Your task to perform on an android device: delete the emails in spam in the gmail app Image 0: 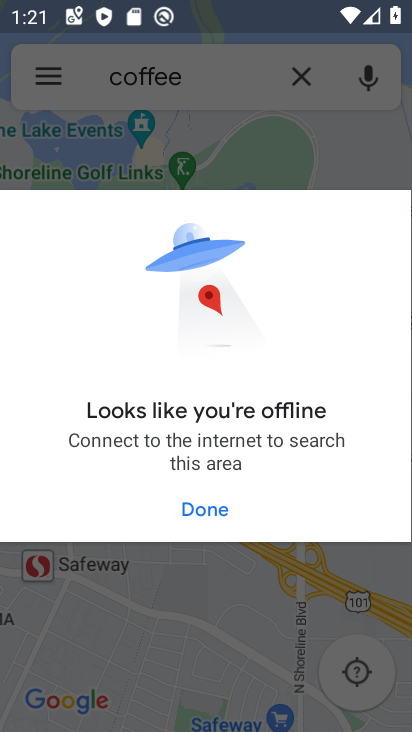
Step 0: press home button
Your task to perform on an android device: delete the emails in spam in the gmail app Image 1: 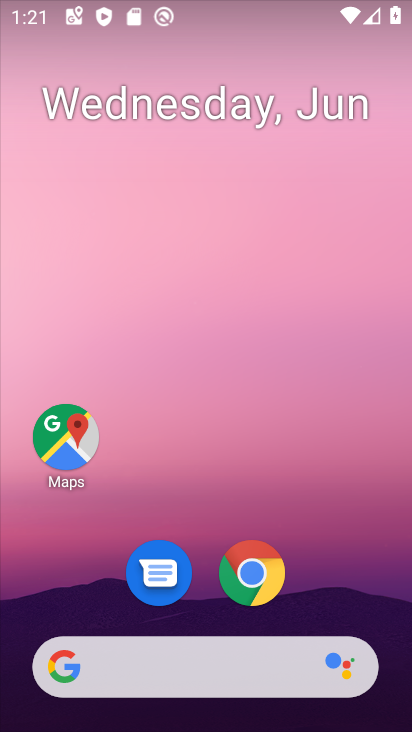
Step 1: drag from (337, 499) to (312, 192)
Your task to perform on an android device: delete the emails in spam in the gmail app Image 2: 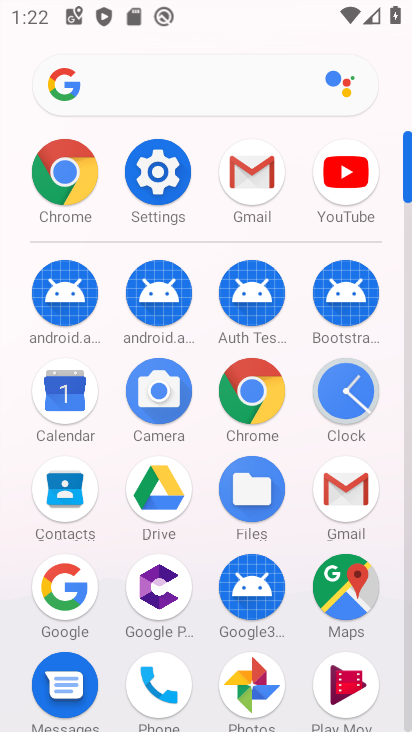
Step 2: click (255, 173)
Your task to perform on an android device: delete the emails in spam in the gmail app Image 3: 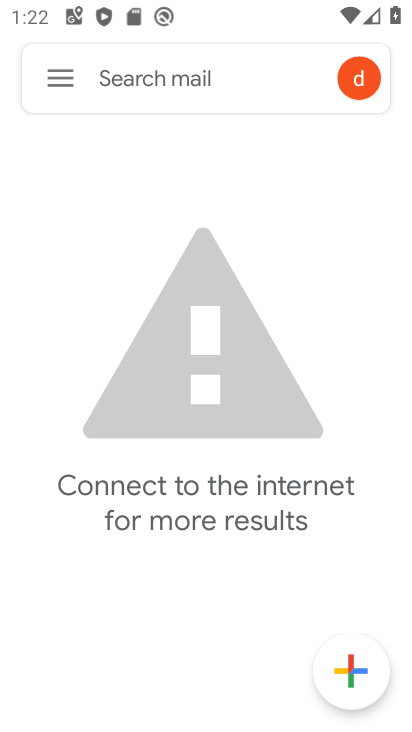
Step 3: click (60, 78)
Your task to perform on an android device: delete the emails in spam in the gmail app Image 4: 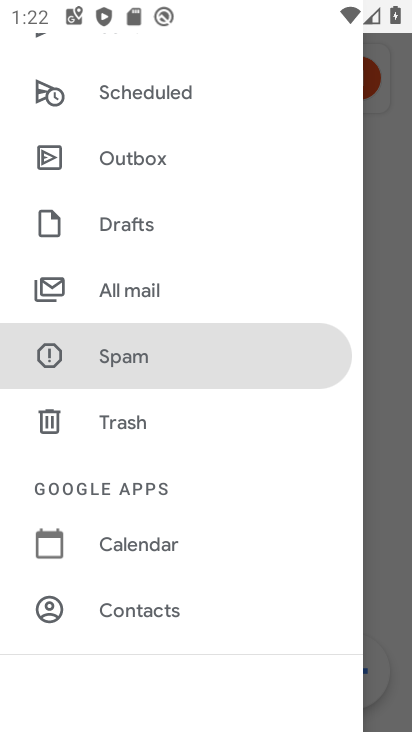
Step 4: drag from (203, 594) to (226, 257)
Your task to perform on an android device: delete the emails in spam in the gmail app Image 5: 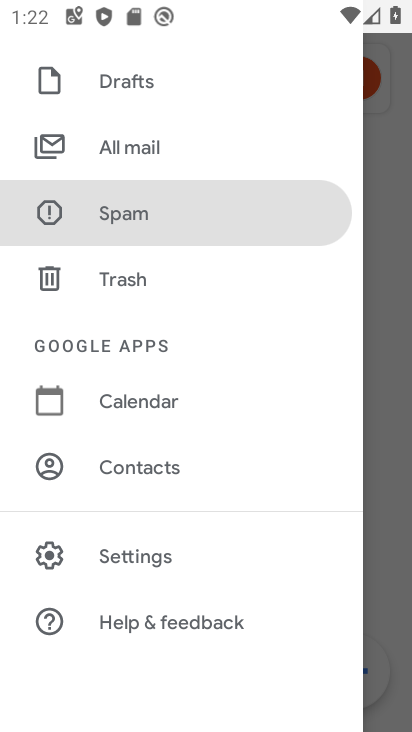
Step 5: click (168, 212)
Your task to perform on an android device: delete the emails in spam in the gmail app Image 6: 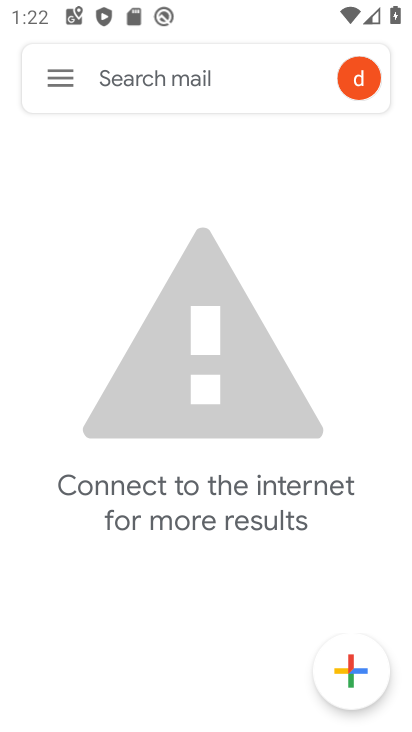
Step 6: task complete